Your task to perform on an android device: change the clock display to digital Image 0: 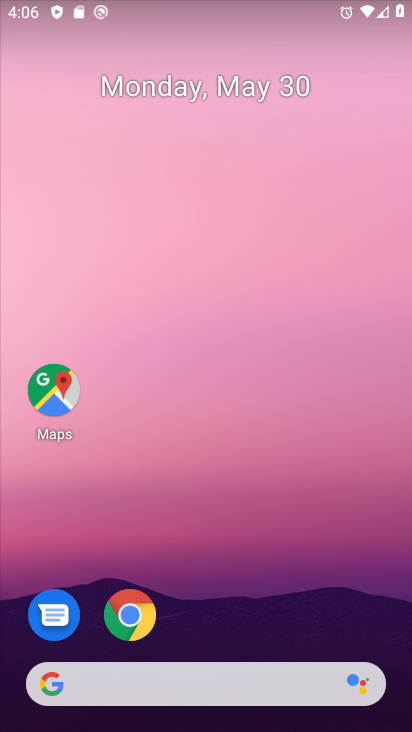
Step 0: drag from (236, 574) to (265, 52)
Your task to perform on an android device: change the clock display to digital Image 1: 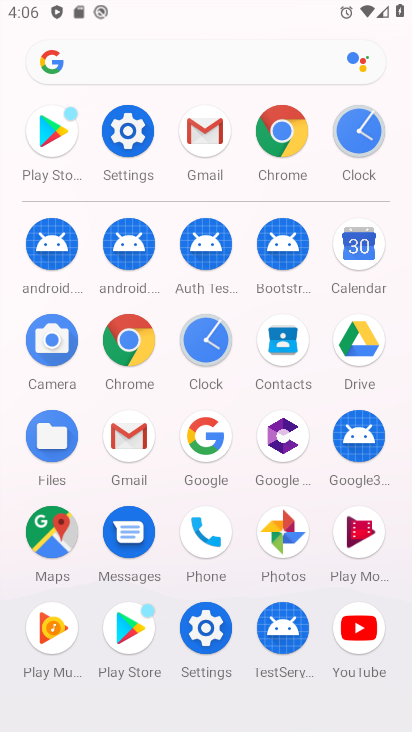
Step 1: click (364, 136)
Your task to perform on an android device: change the clock display to digital Image 2: 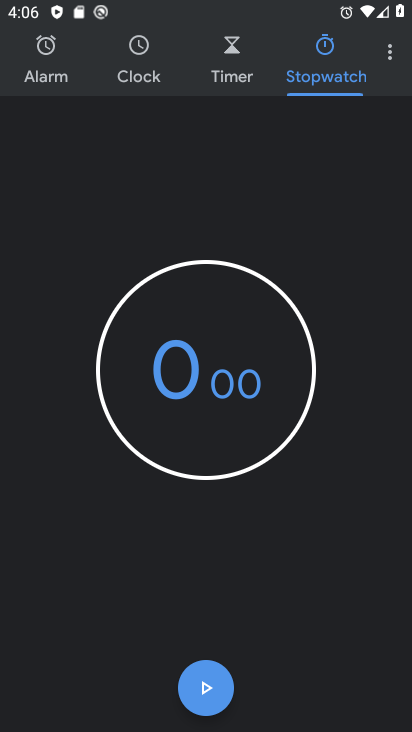
Step 2: click (144, 68)
Your task to perform on an android device: change the clock display to digital Image 3: 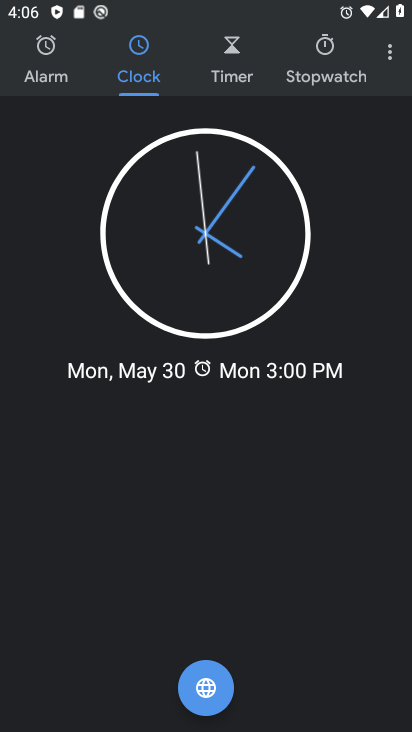
Step 3: click (390, 61)
Your task to perform on an android device: change the clock display to digital Image 4: 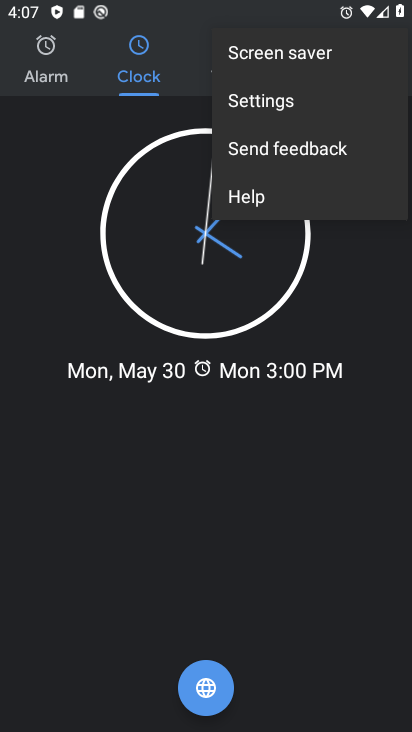
Step 4: click (337, 98)
Your task to perform on an android device: change the clock display to digital Image 5: 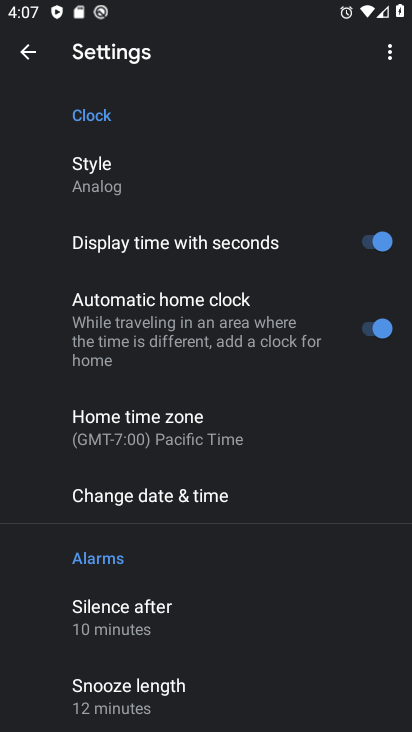
Step 5: click (147, 173)
Your task to perform on an android device: change the clock display to digital Image 6: 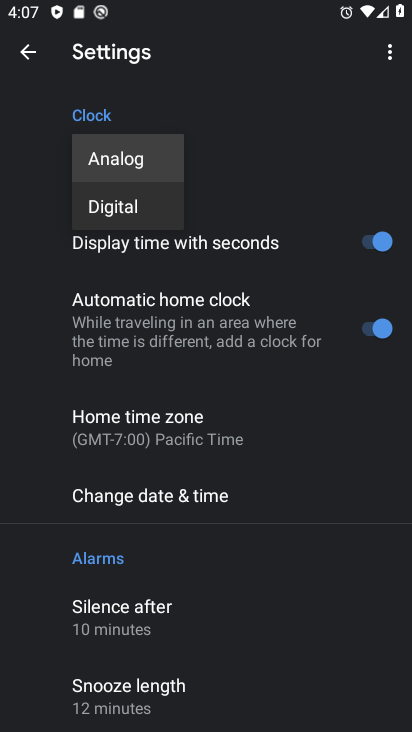
Step 6: click (150, 199)
Your task to perform on an android device: change the clock display to digital Image 7: 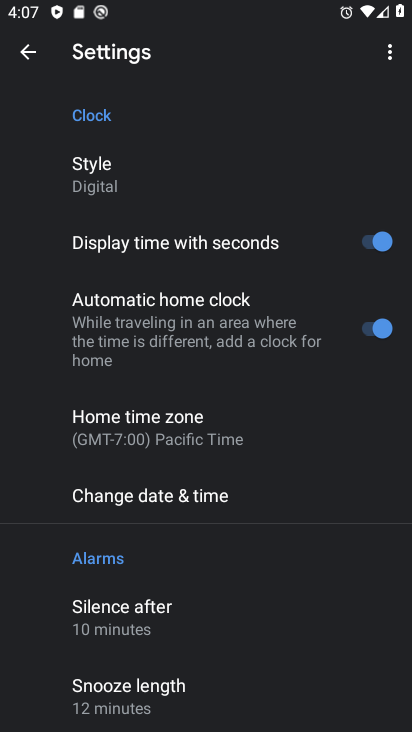
Step 7: click (34, 53)
Your task to perform on an android device: change the clock display to digital Image 8: 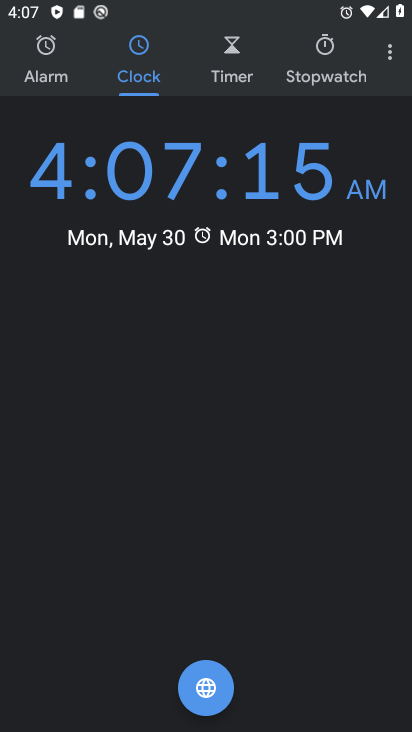
Step 8: task complete